Your task to perform on an android device: see creations saved in the google photos Image 0: 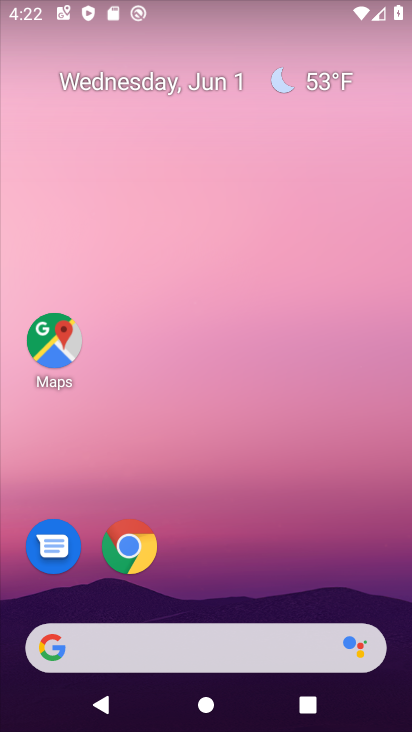
Step 0: drag from (268, 517) to (177, 110)
Your task to perform on an android device: see creations saved in the google photos Image 1: 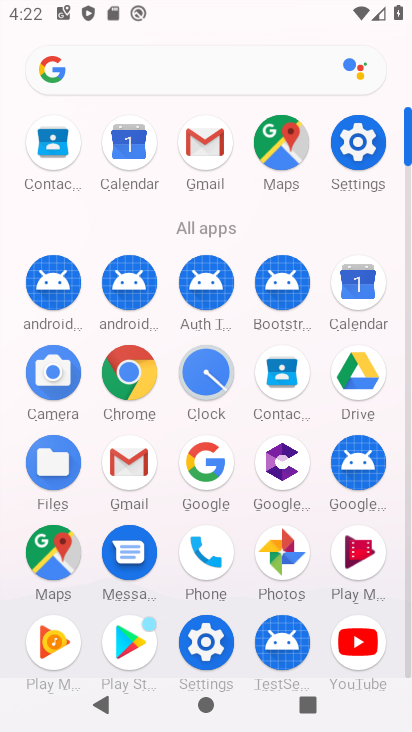
Step 1: click (159, 245)
Your task to perform on an android device: see creations saved in the google photos Image 2: 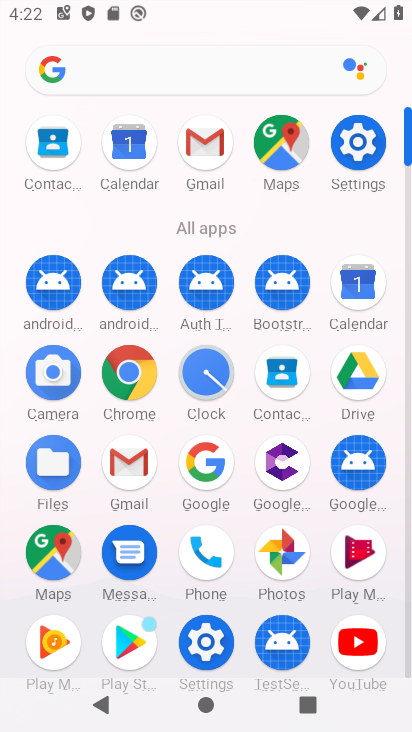
Step 2: click (273, 545)
Your task to perform on an android device: see creations saved in the google photos Image 3: 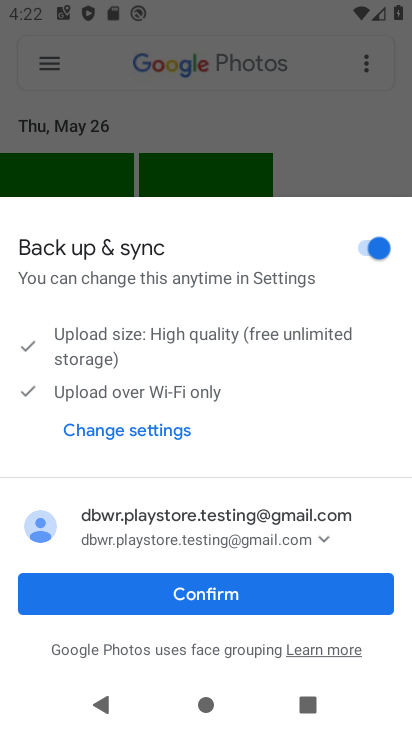
Step 3: click (209, 589)
Your task to perform on an android device: see creations saved in the google photos Image 4: 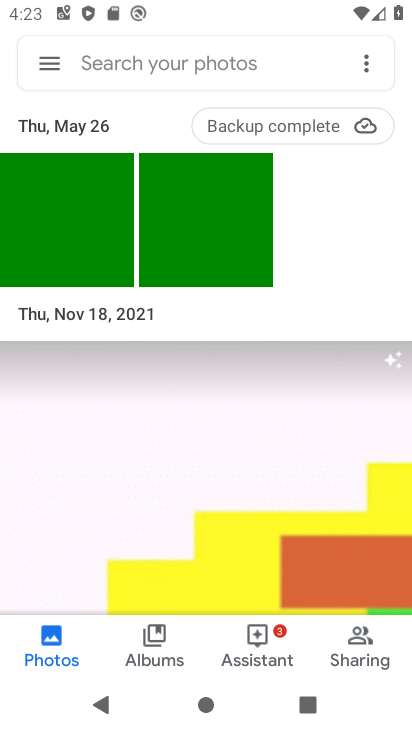
Step 4: click (196, 58)
Your task to perform on an android device: see creations saved in the google photos Image 5: 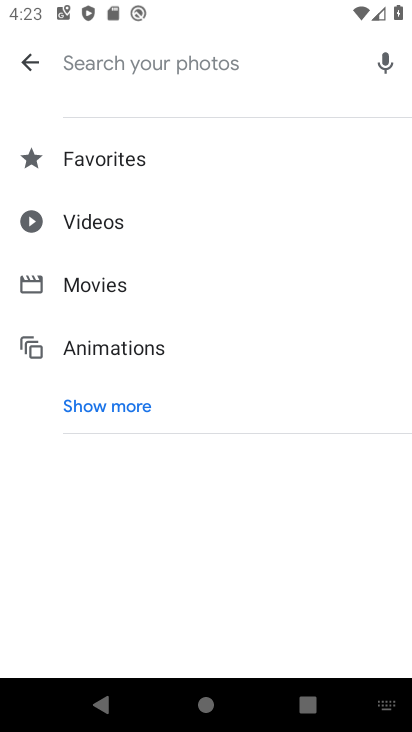
Step 5: click (104, 60)
Your task to perform on an android device: see creations saved in the google photos Image 6: 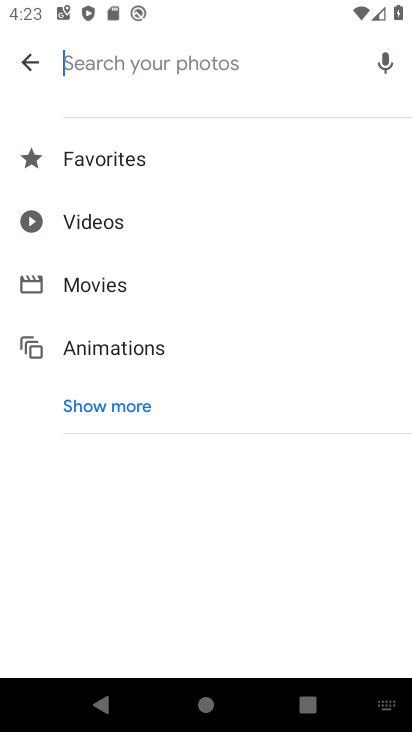
Step 6: click (92, 400)
Your task to perform on an android device: see creations saved in the google photos Image 7: 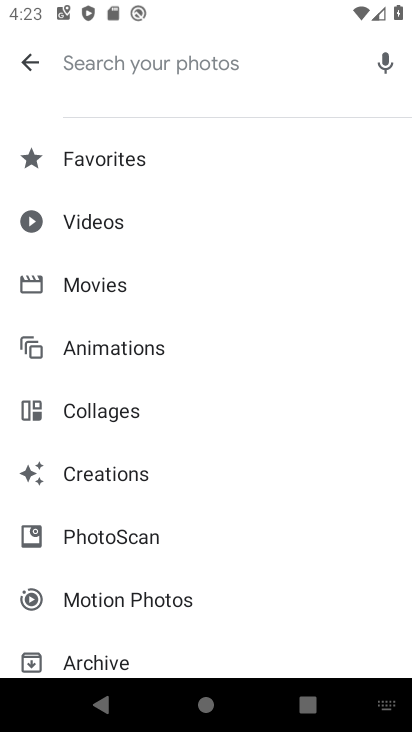
Step 7: click (95, 470)
Your task to perform on an android device: see creations saved in the google photos Image 8: 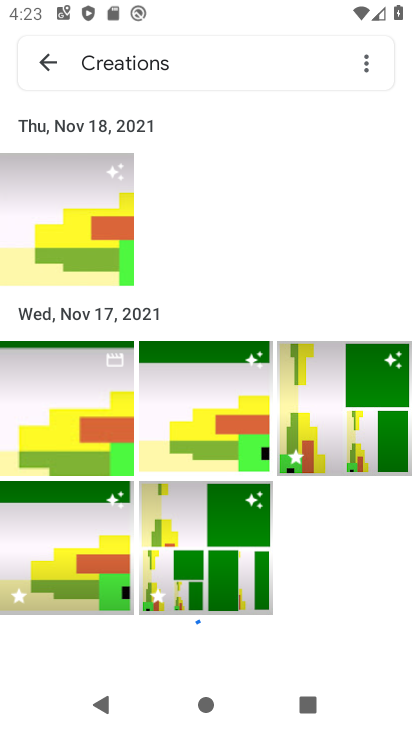
Step 8: task complete